Your task to perform on an android device: Open calendar and show me the fourth week of next month Image 0: 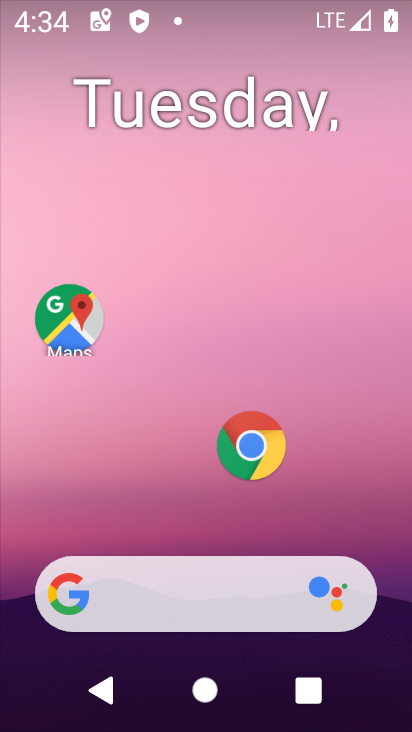
Step 0: drag from (169, 472) to (199, 0)
Your task to perform on an android device: Open calendar and show me the fourth week of next month Image 1: 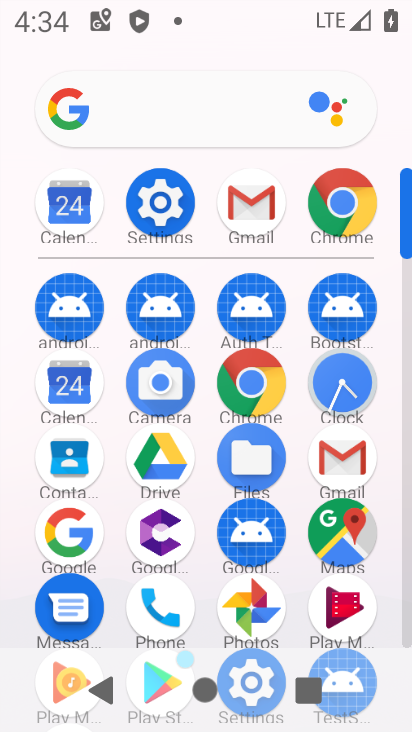
Step 1: click (83, 391)
Your task to perform on an android device: Open calendar and show me the fourth week of next month Image 2: 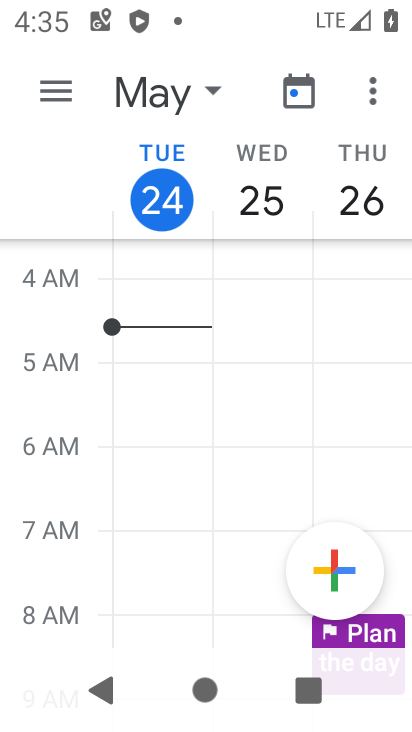
Step 2: click (53, 86)
Your task to perform on an android device: Open calendar and show me the fourth week of next month Image 3: 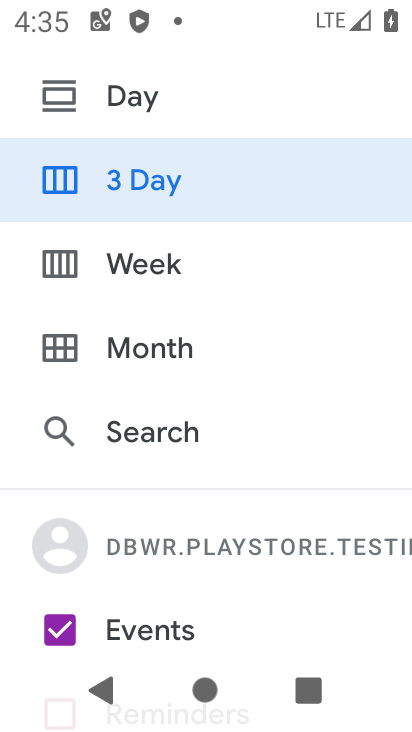
Step 3: click (141, 253)
Your task to perform on an android device: Open calendar and show me the fourth week of next month Image 4: 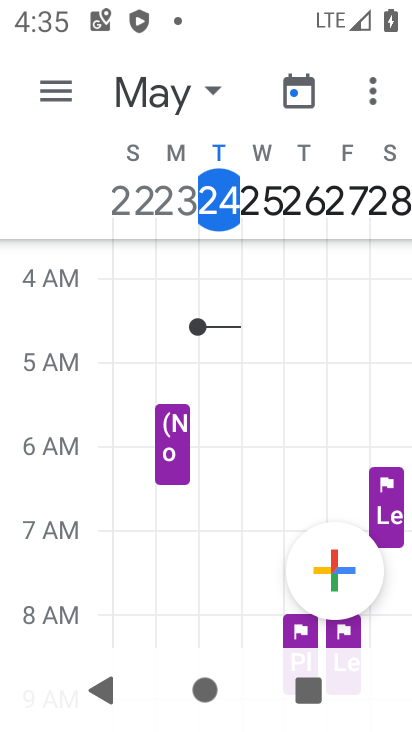
Step 4: task complete